Your task to perform on an android device: Open privacy settings Image 0: 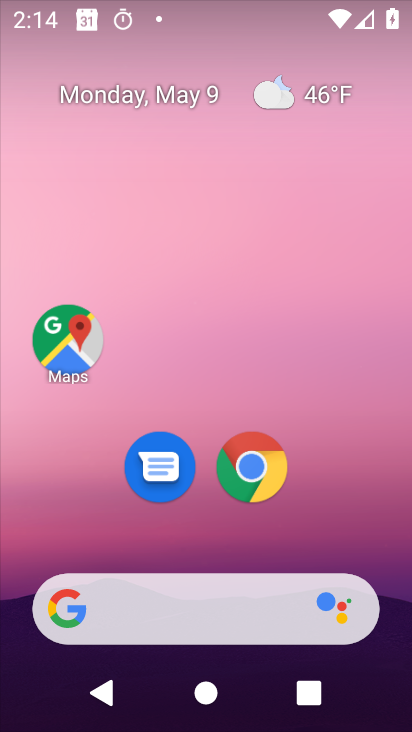
Step 0: drag from (351, 514) to (292, 20)
Your task to perform on an android device: Open privacy settings Image 1: 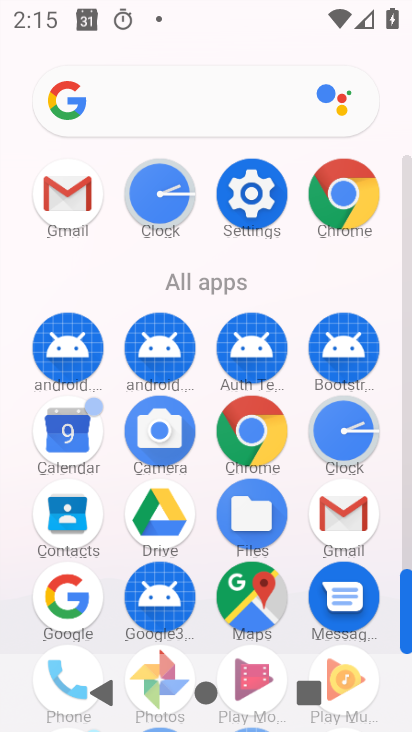
Step 1: click (243, 198)
Your task to perform on an android device: Open privacy settings Image 2: 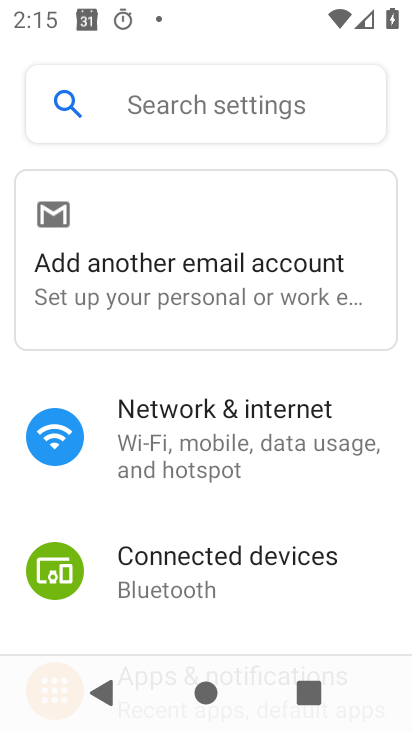
Step 2: drag from (277, 547) to (325, 34)
Your task to perform on an android device: Open privacy settings Image 3: 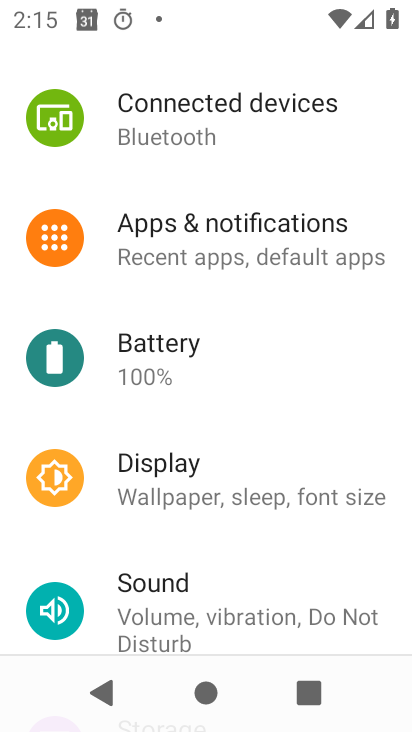
Step 3: drag from (261, 584) to (253, 78)
Your task to perform on an android device: Open privacy settings Image 4: 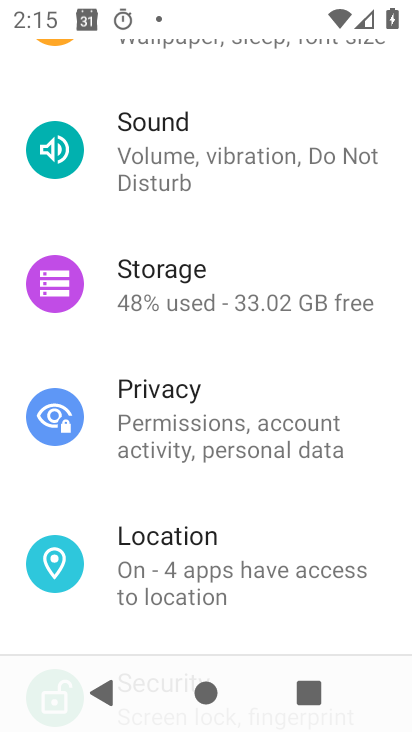
Step 4: click (177, 439)
Your task to perform on an android device: Open privacy settings Image 5: 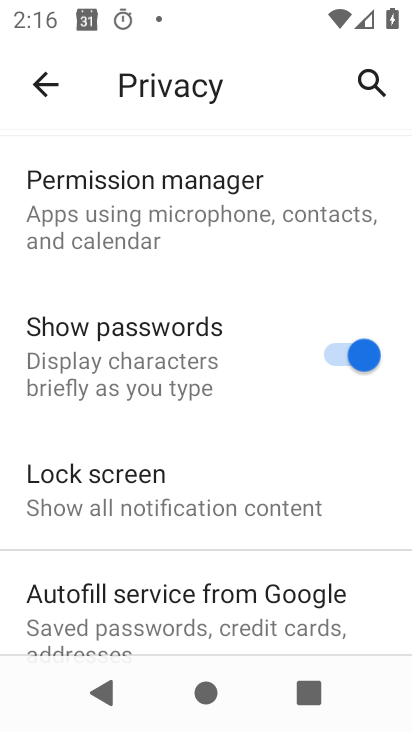
Step 5: task complete